Your task to perform on an android device: Play the last video I watched on Youtube Image 0: 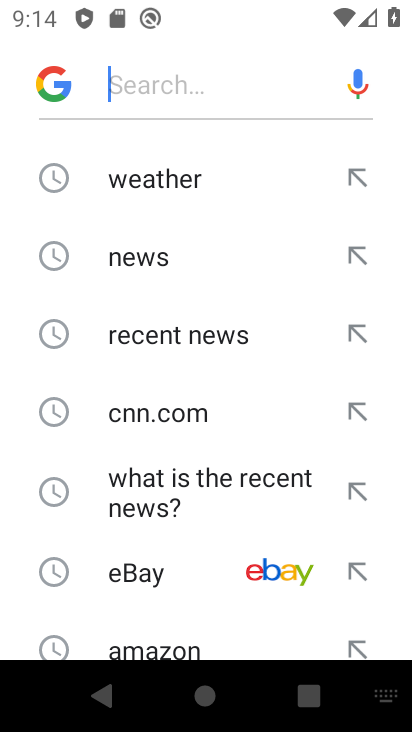
Step 0: press home button
Your task to perform on an android device: Play the last video I watched on Youtube Image 1: 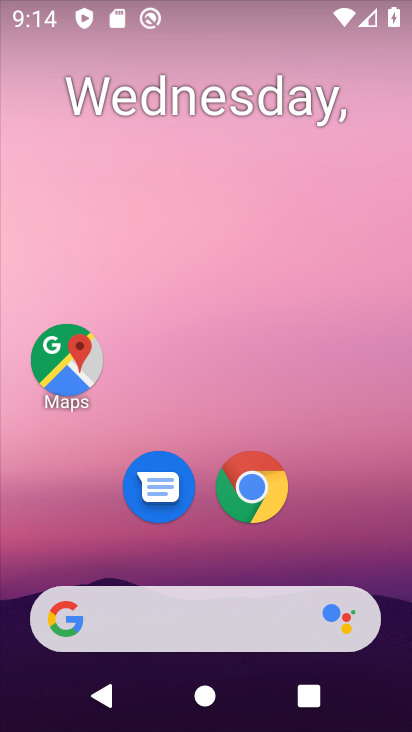
Step 1: drag from (245, 721) to (343, 24)
Your task to perform on an android device: Play the last video I watched on Youtube Image 2: 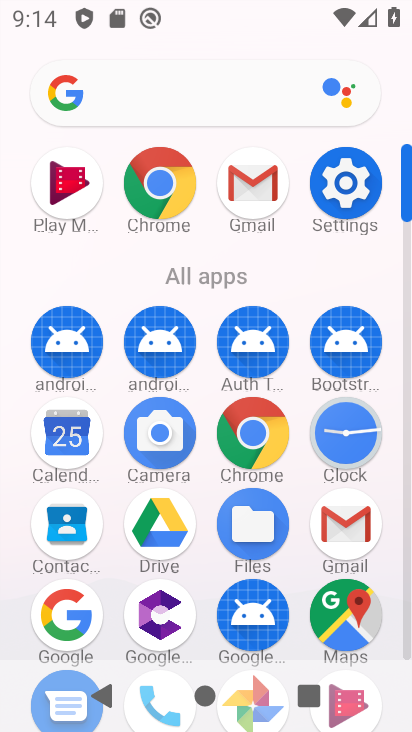
Step 2: drag from (237, 600) to (256, 89)
Your task to perform on an android device: Play the last video I watched on Youtube Image 3: 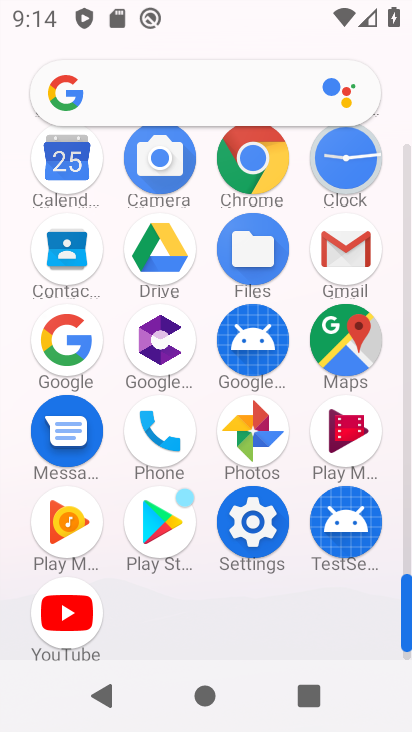
Step 3: click (72, 616)
Your task to perform on an android device: Play the last video I watched on Youtube Image 4: 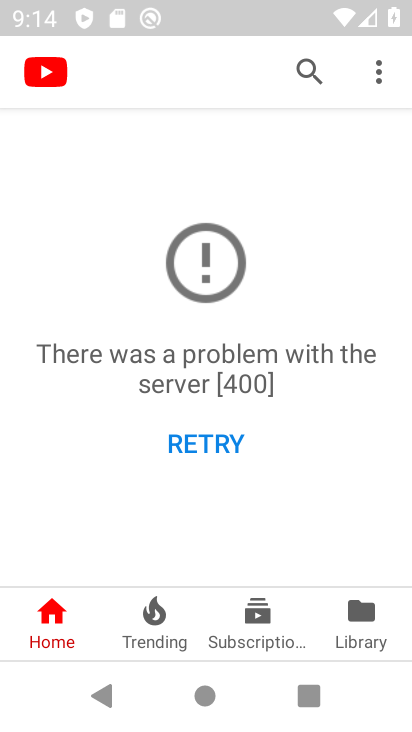
Step 4: click (365, 625)
Your task to perform on an android device: Play the last video I watched on Youtube Image 5: 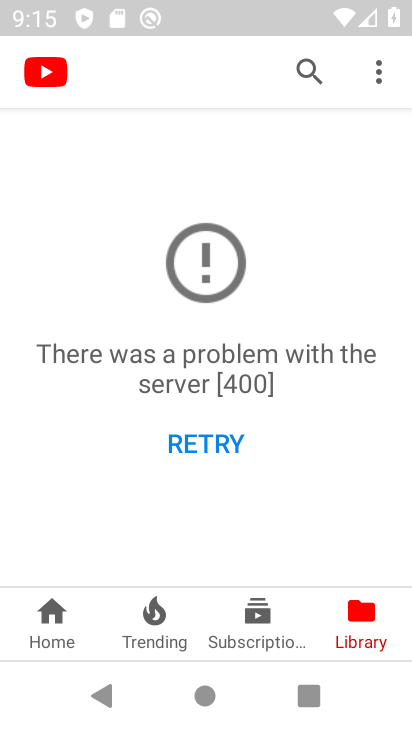
Step 5: task complete